Your task to perform on an android device: Go to Amazon Image 0: 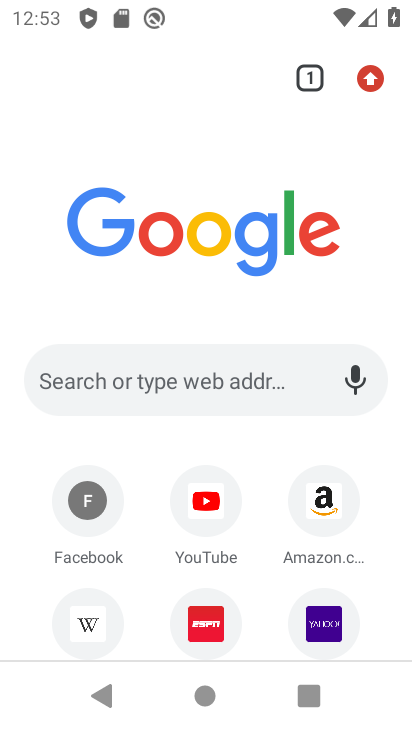
Step 0: click (317, 503)
Your task to perform on an android device: Go to Amazon Image 1: 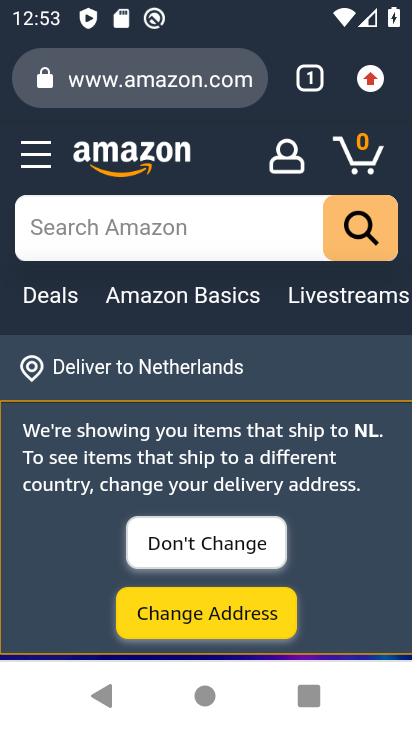
Step 1: task complete